Your task to perform on an android device: Open Google Maps Image 0: 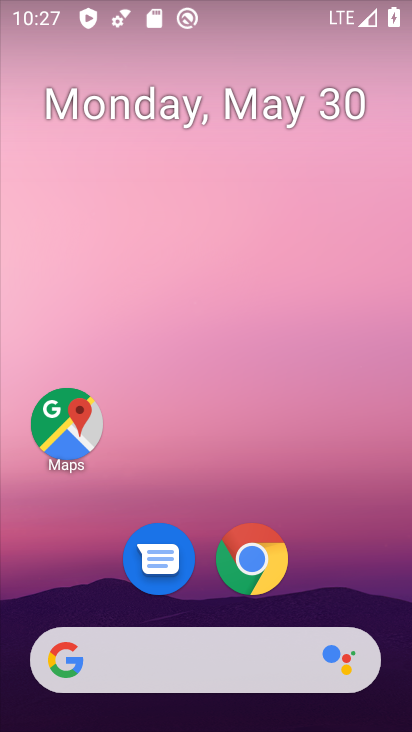
Step 0: click (74, 421)
Your task to perform on an android device: Open Google Maps Image 1: 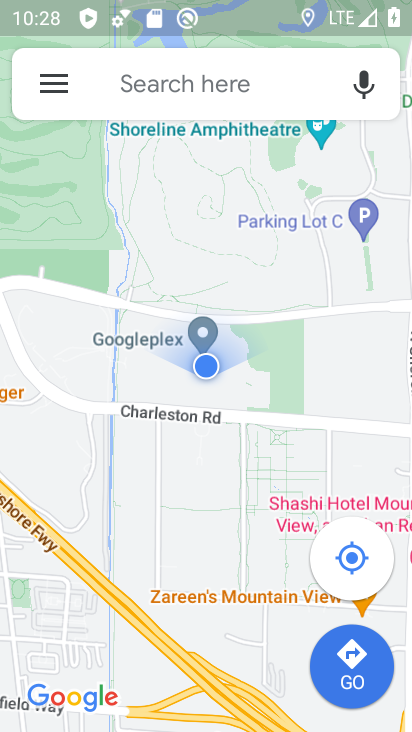
Step 1: task complete